Your task to perform on an android device: turn off translation in the chrome app Image 0: 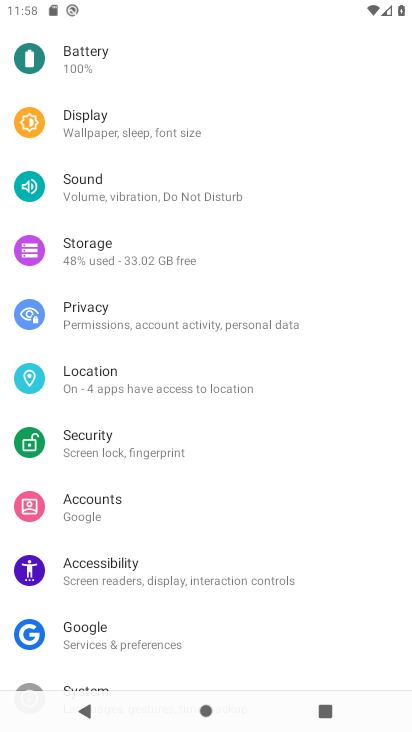
Step 0: press home button
Your task to perform on an android device: turn off translation in the chrome app Image 1: 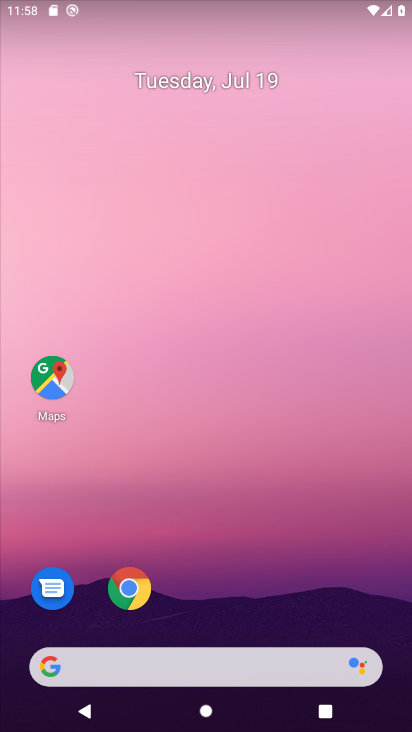
Step 1: drag from (234, 595) to (189, 29)
Your task to perform on an android device: turn off translation in the chrome app Image 2: 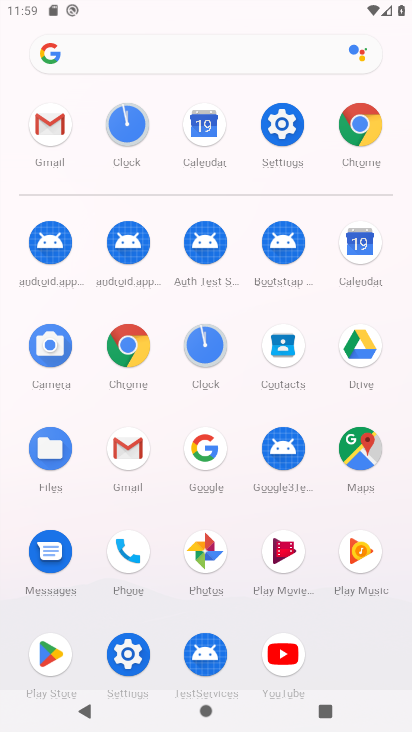
Step 2: click (132, 354)
Your task to perform on an android device: turn off translation in the chrome app Image 3: 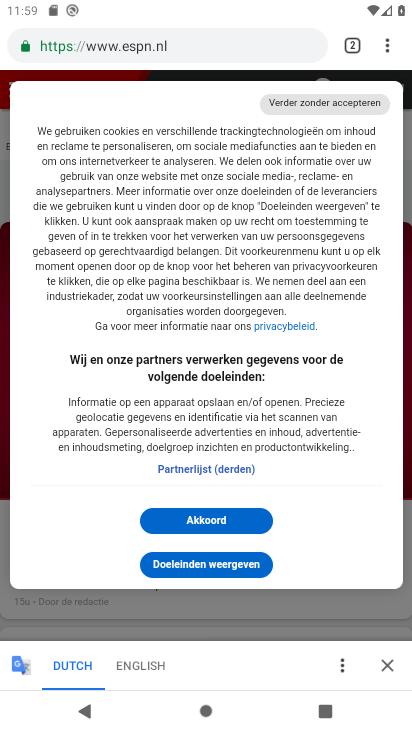
Step 3: click (388, 40)
Your task to perform on an android device: turn off translation in the chrome app Image 4: 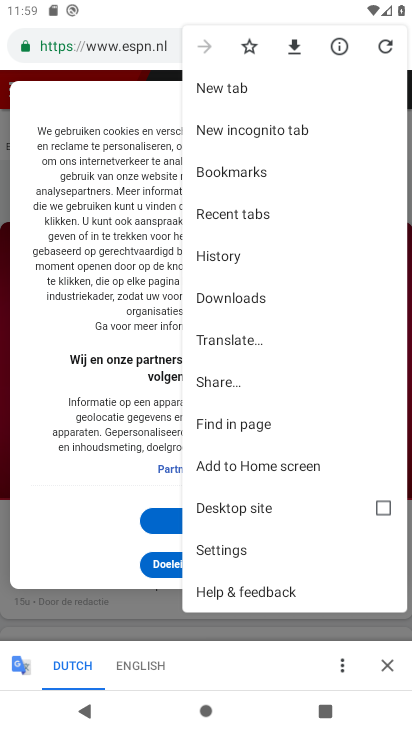
Step 4: click (224, 547)
Your task to perform on an android device: turn off translation in the chrome app Image 5: 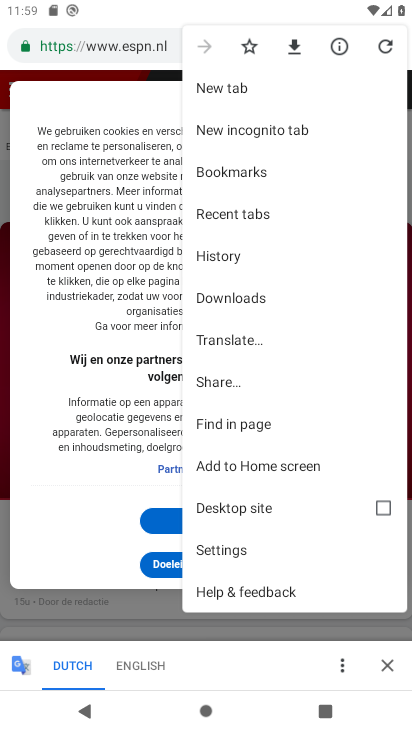
Step 5: click (221, 551)
Your task to perform on an android device: turn off translation in the chrome app Image 6: 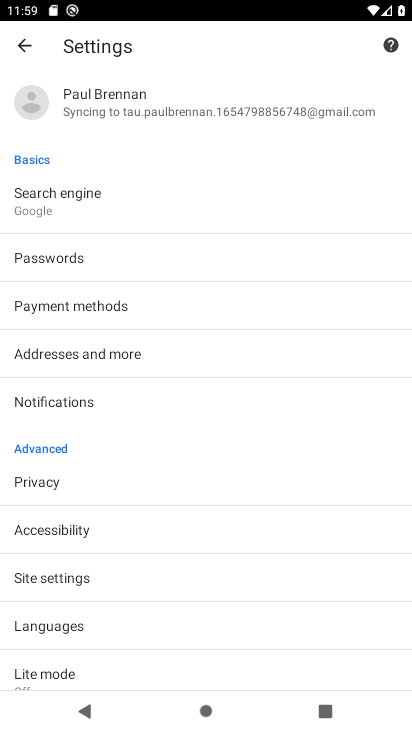
Step 6: click (64, 626)
Your task to perform on an android device: turn off translation in the chrome app Image 7: 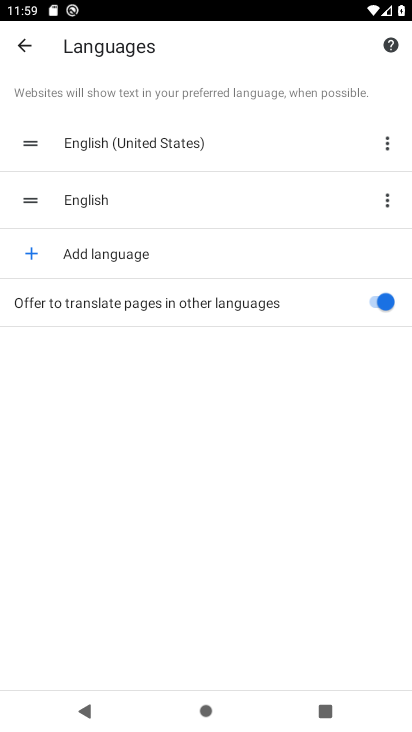
Step 7: click (354, 299)
Your task to perform on an android device: turn off translation in the chrome app Image 8: 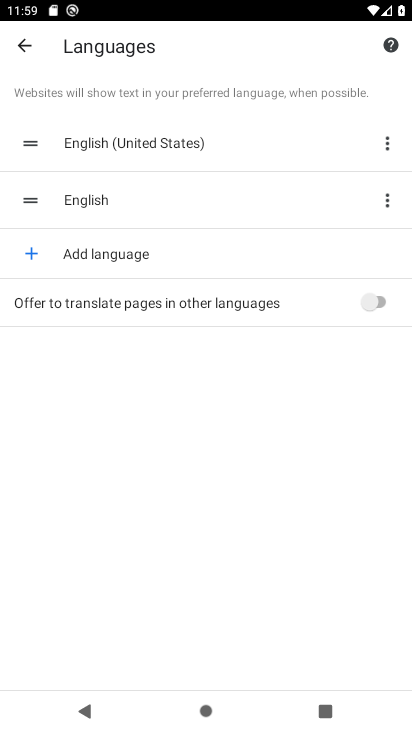
Step 8: task complete